Your task to perform on an android device: turn notification dots off Image 0: 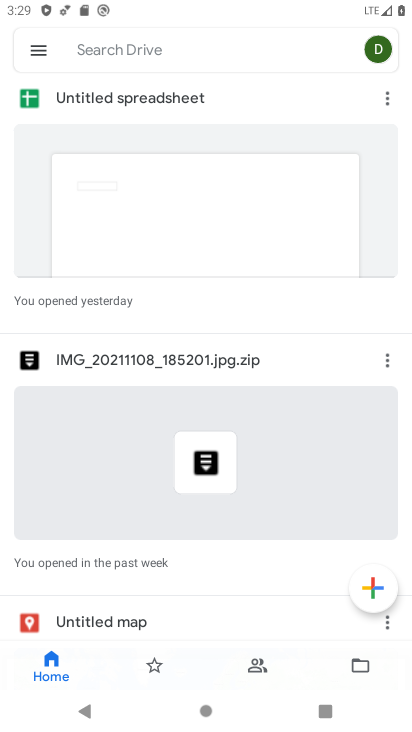
Step 0: press home button
Your task to perform on an android device: turn notification dots off Image 1: 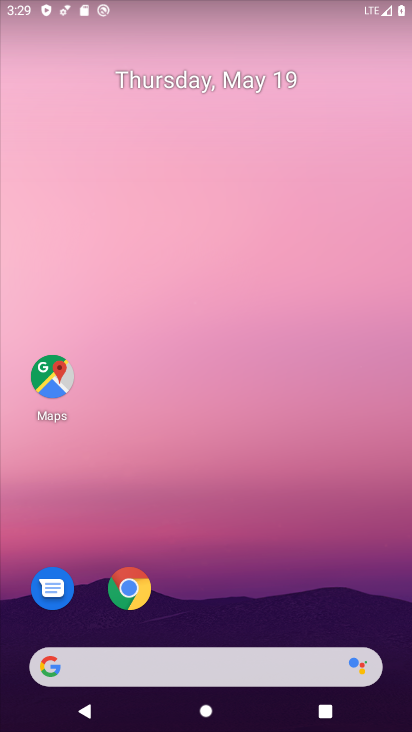
Step 1: drag from (266, 692) to (242, 166)
Your task to perform on an android device: turn notification dots off Image 2: 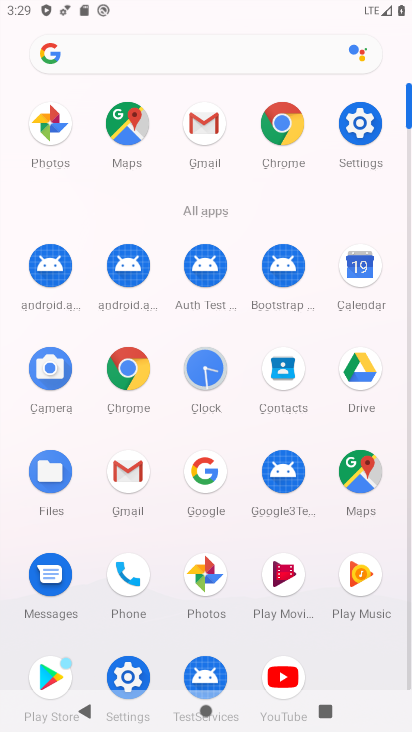
Step 2: click (347, 136)
Your task to perform on an android device: turn notification dots off Image 3: 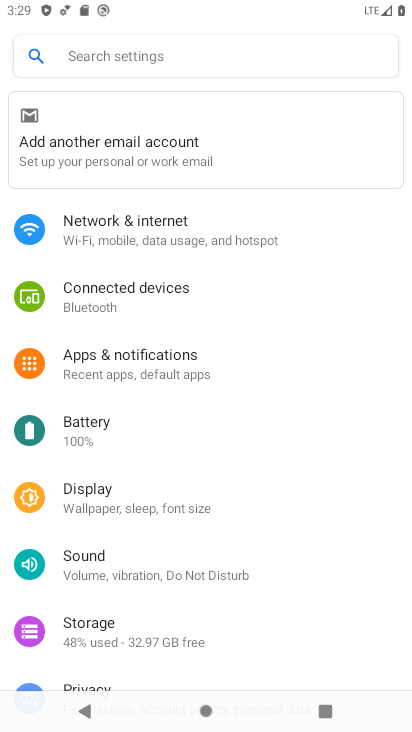
Step 3: click (125, 60)
Your task to perform on an android device: turn notification dots off Image 4: 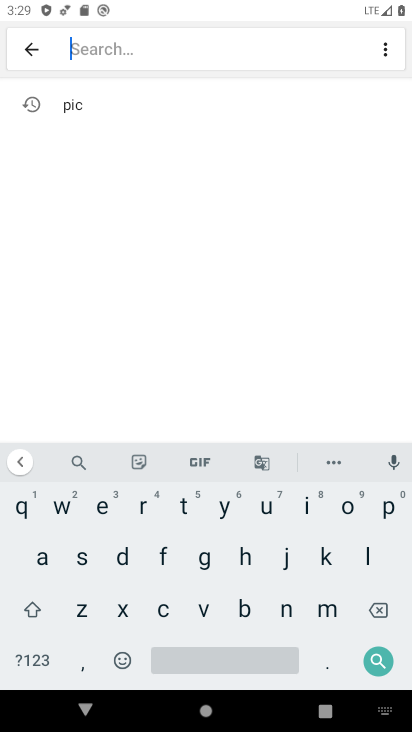
Step 4: click (124, 554)
Your task to perform on an android device: turn notification dots off Image 5: 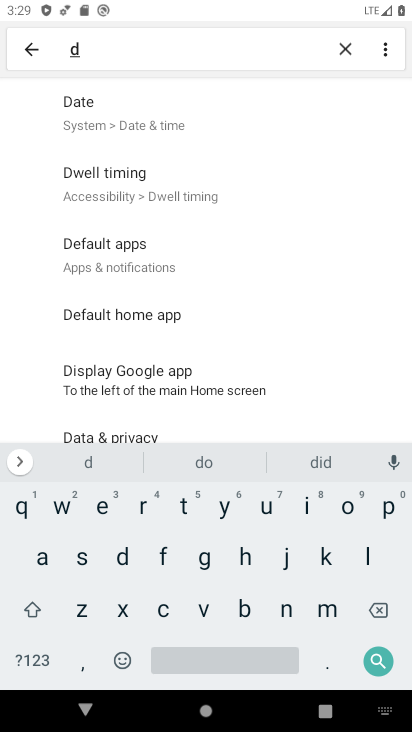
Step 5: click (343, 507)
Your task to perform on an android device: turn notification dots off Image 6: 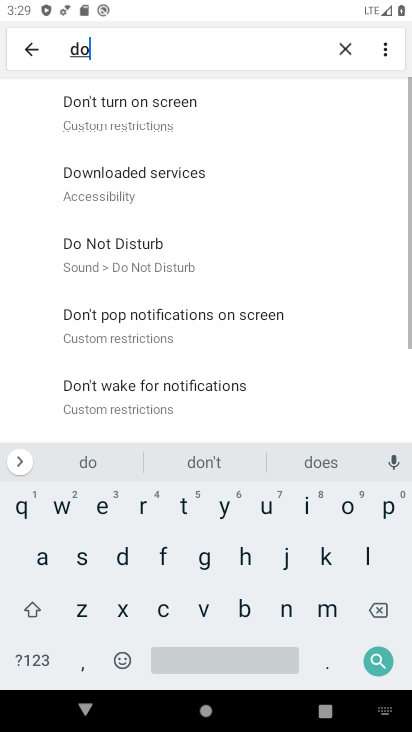
Step 6: click (181, 508)
Your task to perform on an android device: turn notification dots off Image 7: 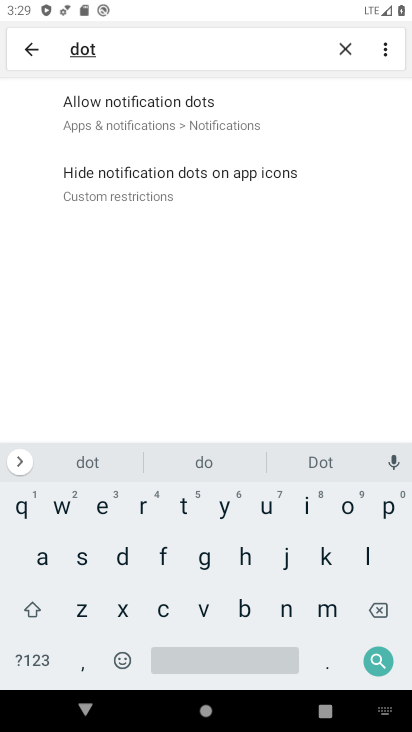
Step 7: click (135, 117)
Your task to perform on an android device: turn notification dots off Image 8: 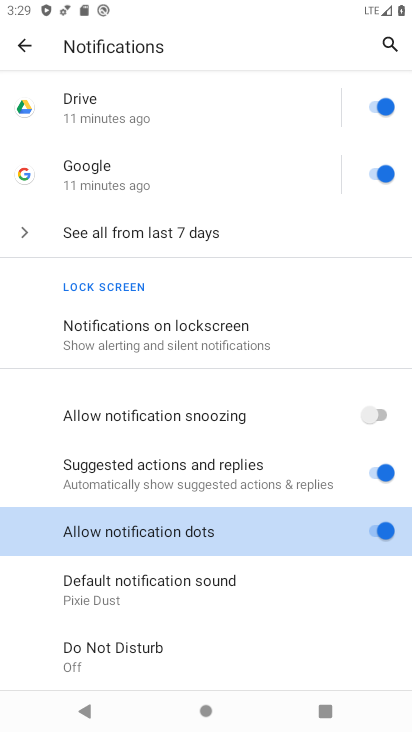
Step 8: click (233, 539)
Your task to perform on an android device: turn notification dots off Image 9: 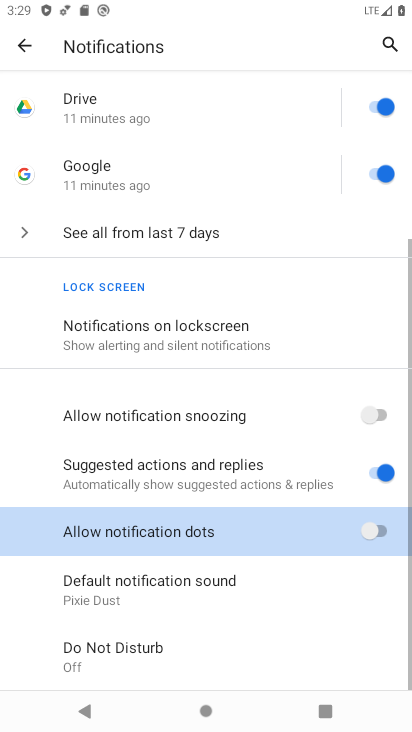
Step 9: task complete